Your task to perform on an android device: Open location settings Image 0: 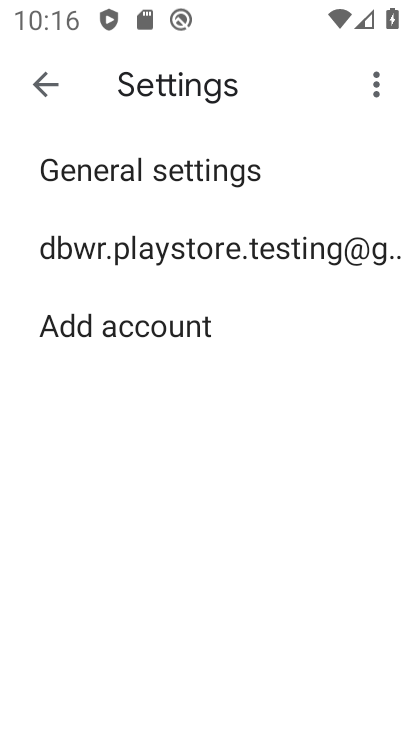
Step 0: press home button
Your task to perform on an android device: Open location settings Image 1: 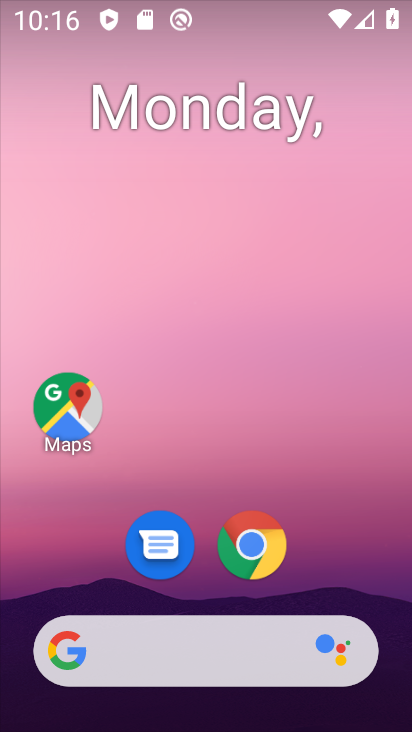
Step 1: drag from (358, 589) to (342, 155)
Your task to perform on an android device: Open location settings Image 2: 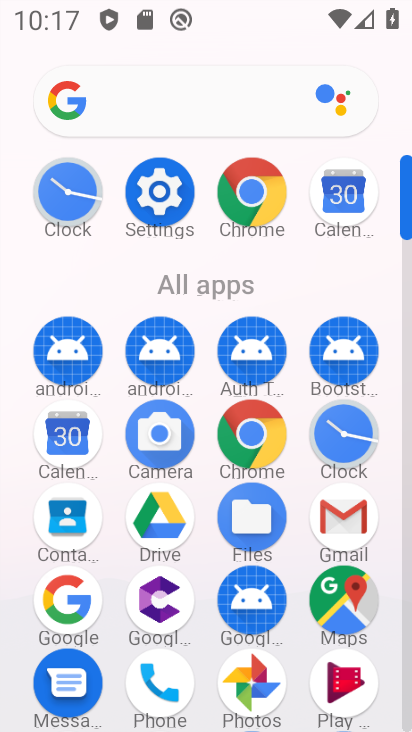
Step 2: click (148, 192)
Your task to perform on an android device: Open location settings Image 3: 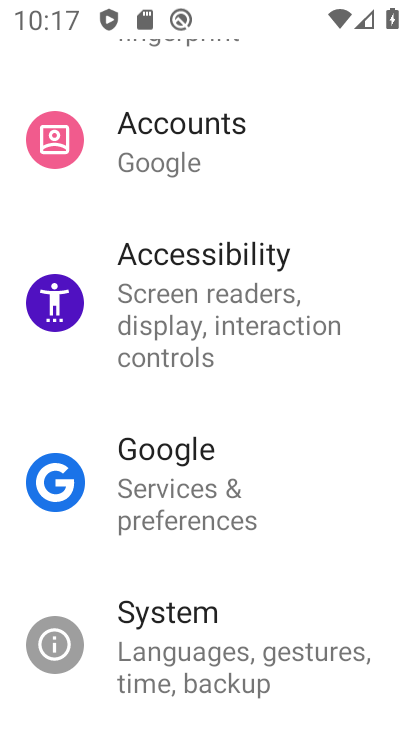
Step 3: drag from (288, 625) to (236, 237)
Your task to perform on an android device: Open location settings Image 4: 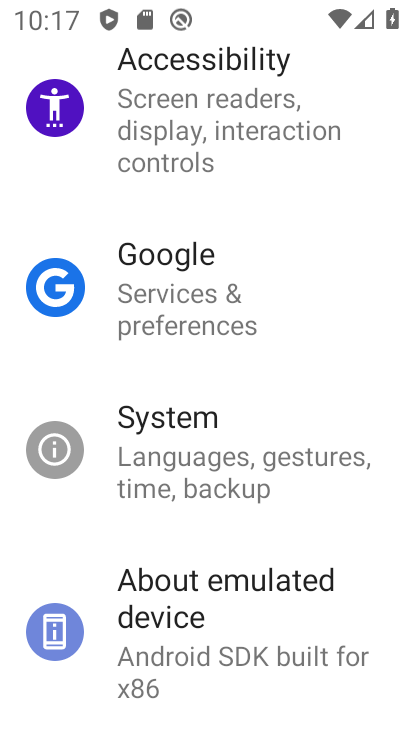
Step 4: drag from (229, 87) to (238, 565)
Your task to perform on an android device: Open location settings Image 5: 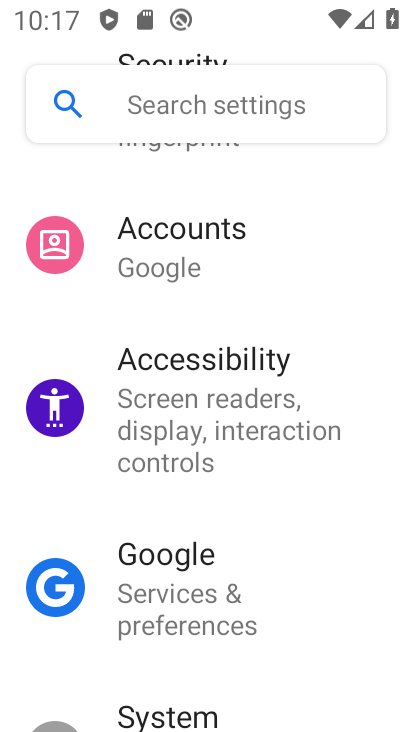
Step 5: drag from (197, 283) to (216, 624)
Your task to perform on an android device: Open location settings Image 6: 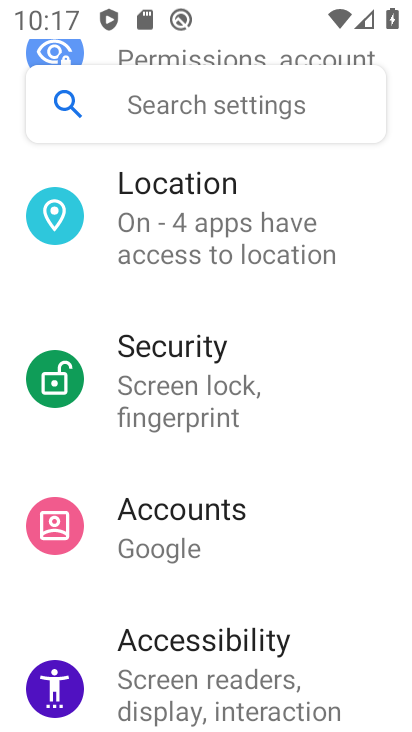
Step 6: click (173, 209)
Your task to perform on an android device: Open location settings Image 7: 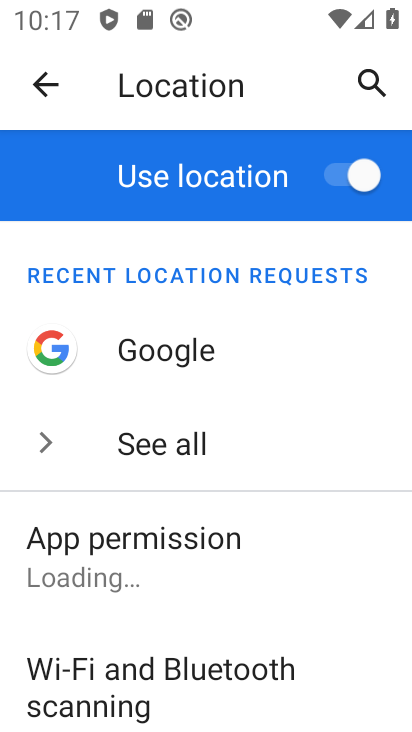
Step 7: task complete